Your task to perform on an android device: remove spam from my inbox in the gmail app Image 0: 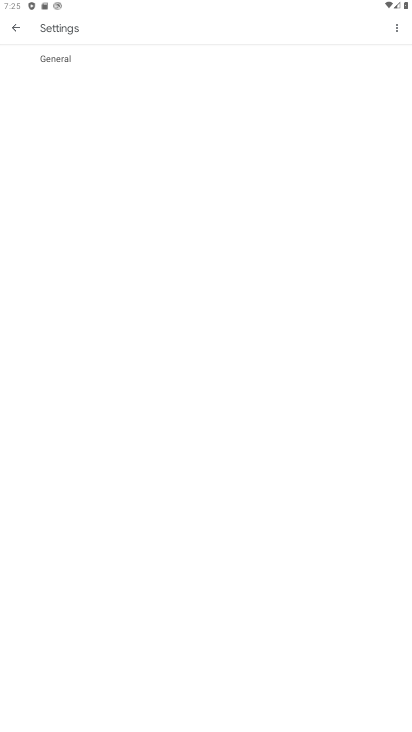
Step 0: drag from (323, 612) to (337, 465)
Your task to perform on an android device: remove spam from my inbox in the gmail app Image 1: 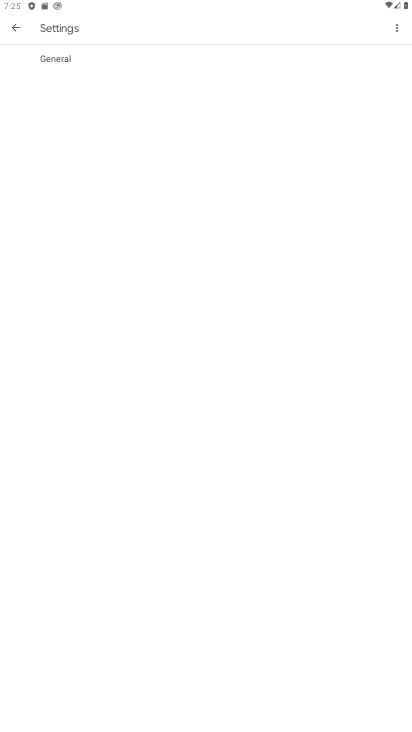
Step 1: press home button
Your task to perform on an android device: remove spam from my inbox in the gmail app Image 2: 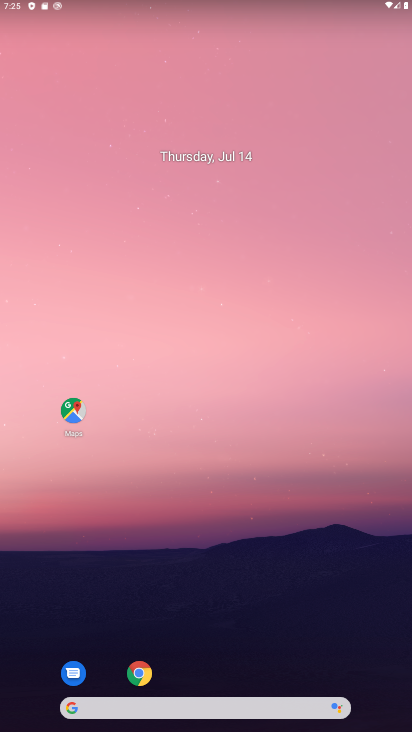
Step 2: drag from (372, 608) to (370, 189)
Your task to perform on an android device: remove spam from my inbox in the gmail app Image 3: 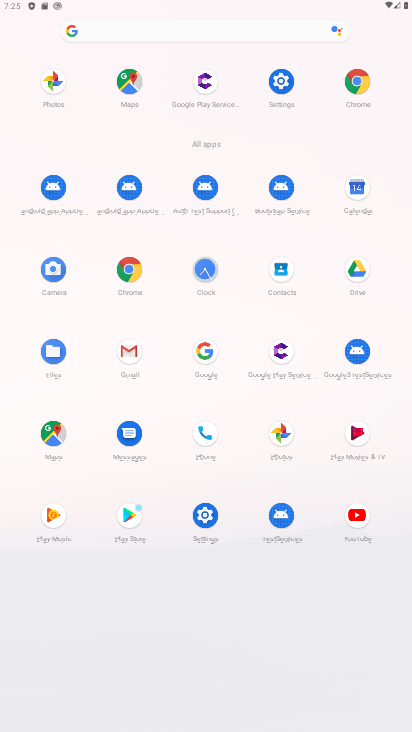
Step 3: click (123, 358)
Your task to perform on an android device: remove spam from my inbox in the gmail app Image 4: 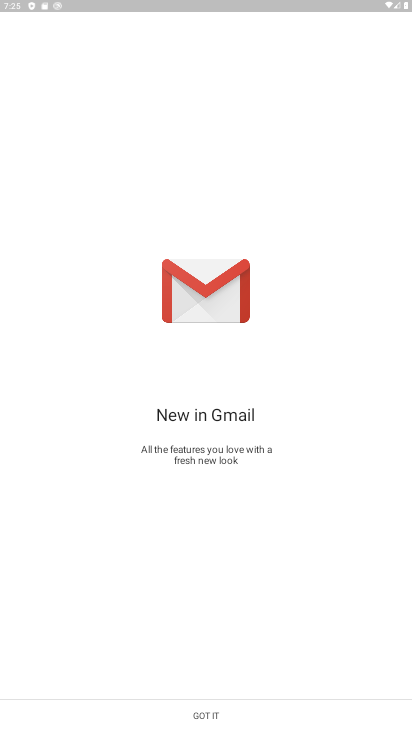
Step 4: click (203, 715)
Your task to perform on an android device: remove spam from my inbox in the gmail app Image 5: 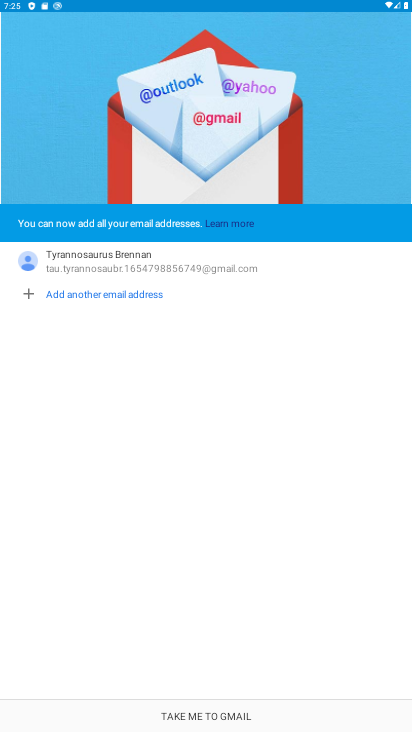
Step 5: click (203, 715)
Your task to perform on an android device: remove spam from my inbox in the gmail app Image 6: 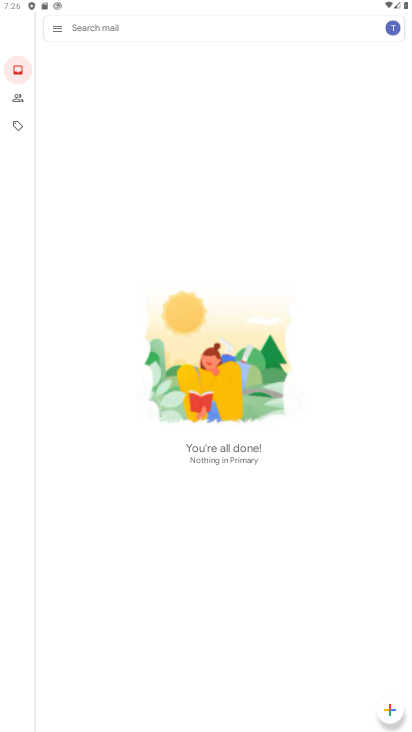
Step 6: click (54, 29)
Your task to perform on an android device: remove spam from my inbox in the gmail app Image 7: 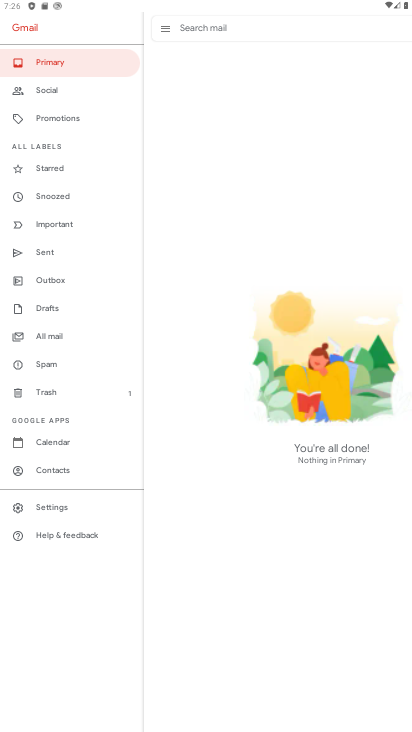
Step 7: click (53, 360)
Your task to perform on an android device: remove spam from my inbox in the gmail app Image 8: 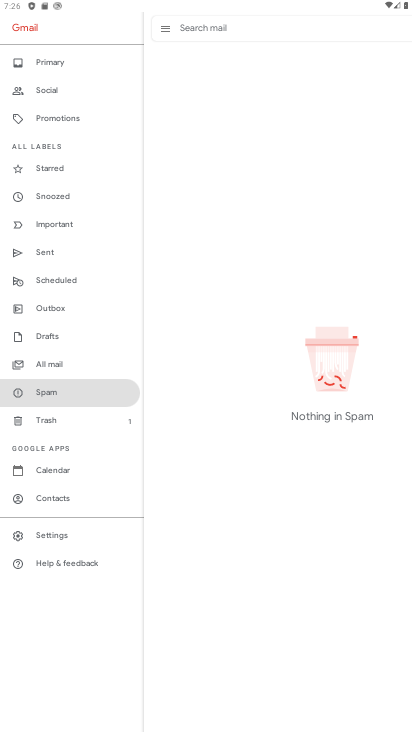
Step 8: task complete